Your task to perform on an android device: Open Chrome and go to settings Image 0: 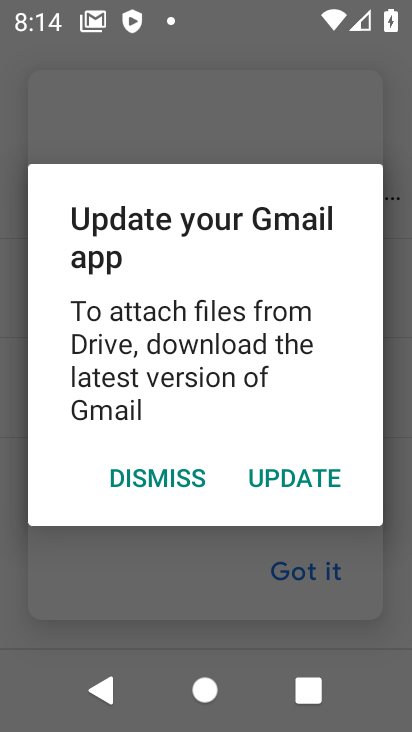
Step 0: press home button
Your task to perform on an android device: Open Chrome and go to settings Image 1: 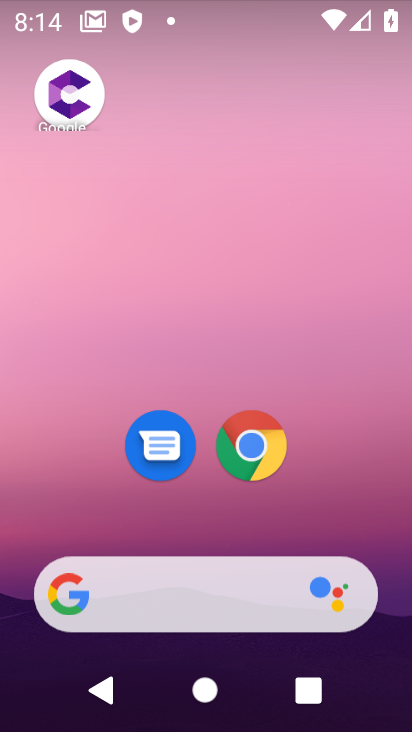
Step 1: click (245, 438)
Your task to perform on an android device: Open Chrome and go to settings Image 2: 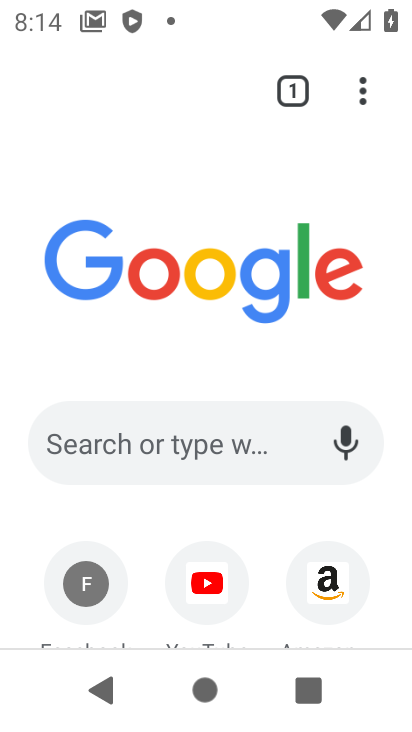
Step 2: click (356, 91)
Your task to perform on an android device: Open Chrome and go to settings Image 3: 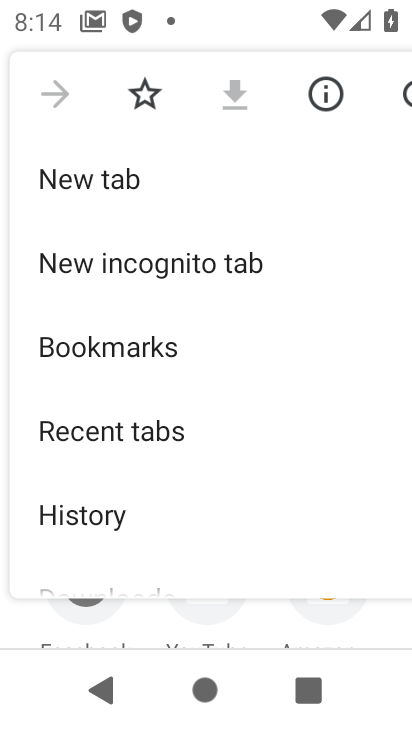
Step 3: drag from (69, 492) to (162, 204)
Your task to perform on an android device: Open Chrome and go to settings Image 4: 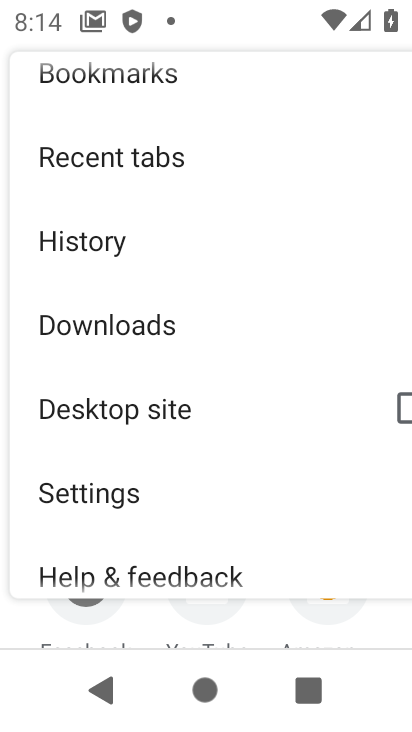
Step 4: click (62, 507)
Your task to perform on an android device: Open Chrome and go to settings Image 5: 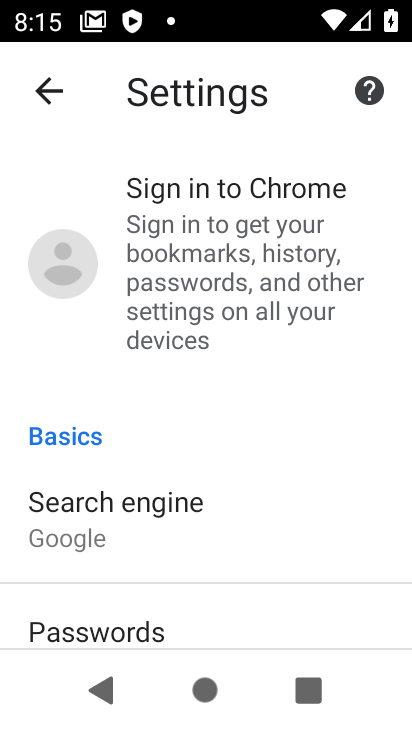
Step 5: task complete